Your task to perform on an android device: change the clock display to show seconds Image 0: 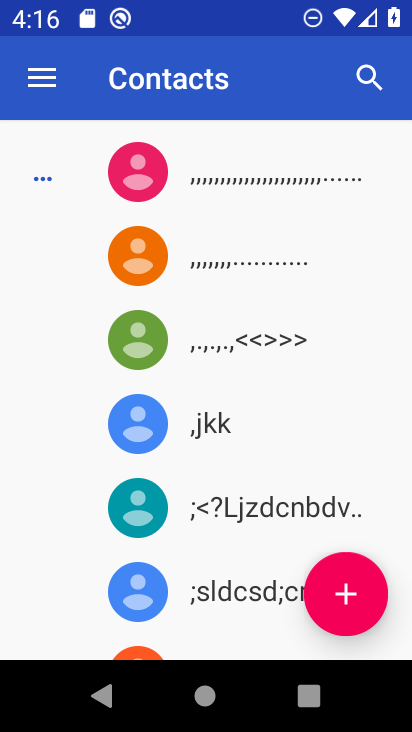
Step 0: press home button
Your task to perform on an android device: change the clock display to show seconds Image 1: 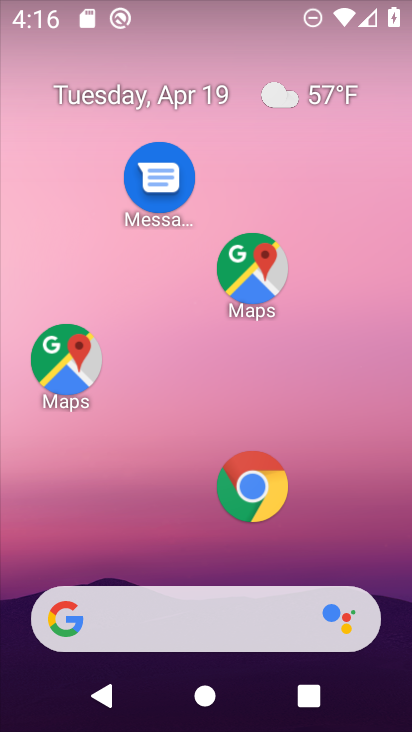
Step 1: drag from (119, 457) to (221, 63)
Your task to perform on an android device: change the clock display to show seconds Image 2: 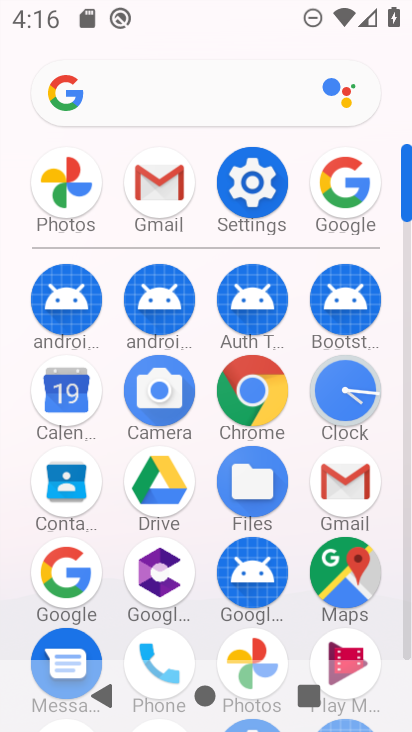
Step 2: click (356, 408)
Your task to perform on an android device: change the clock display to show seconds Image 3: 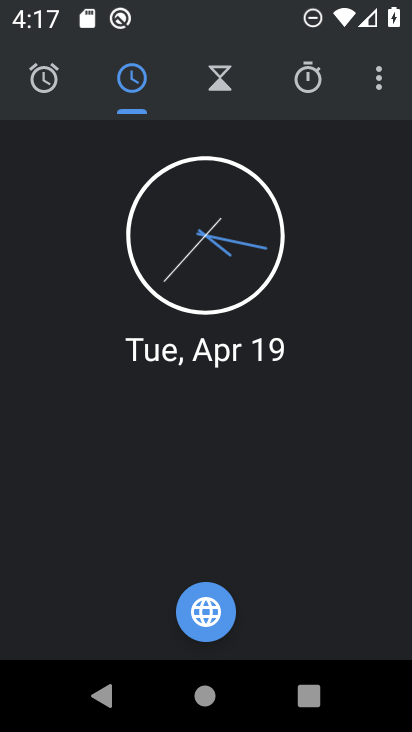
Step 3: click (366, 80)
Your task to perform on an android device: change the clock display to show seconds Image 4: 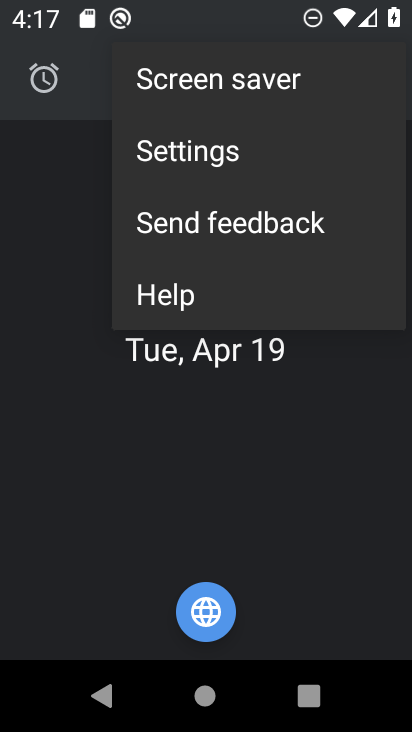
Step 4: click (215, 153)
Your task to perform on an android device: change the clock display to show seconds Image 5: 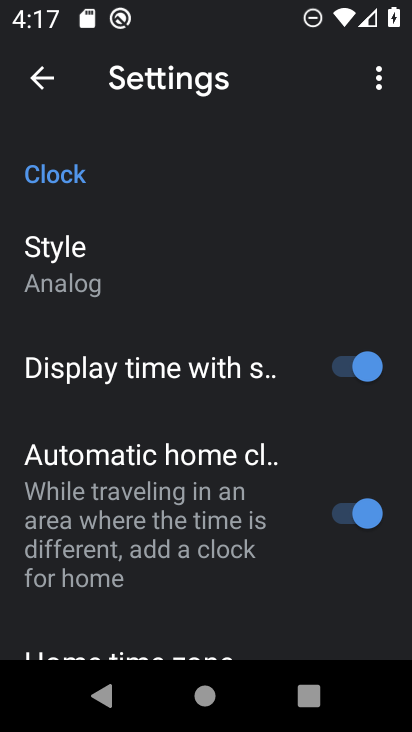
Step 5: task complete